Your task to perform on an android device: open wifi settings Image 0: 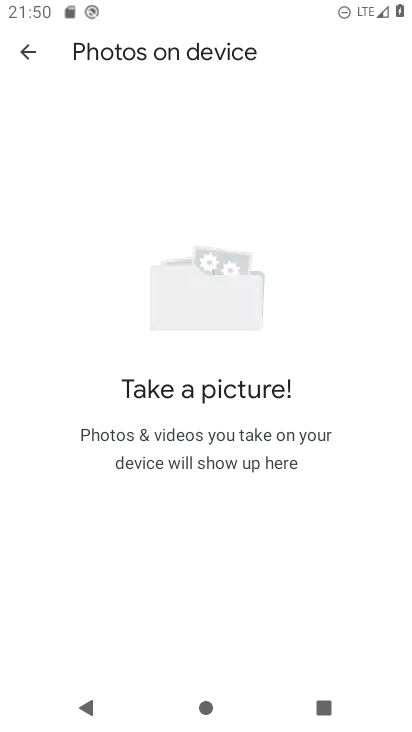
Step 0: press home button
Your task to perform on an android device: open wifi settings Image 1: 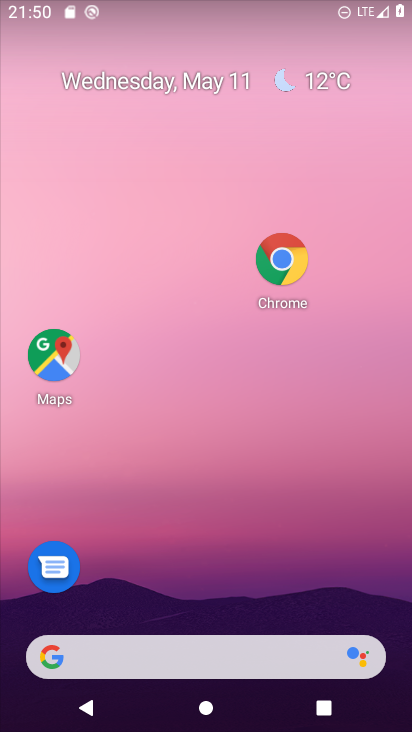
Step 1: drag from (152, 652) to (274, 157)
Your task to perform on an android device: open wifi settings Image 2: 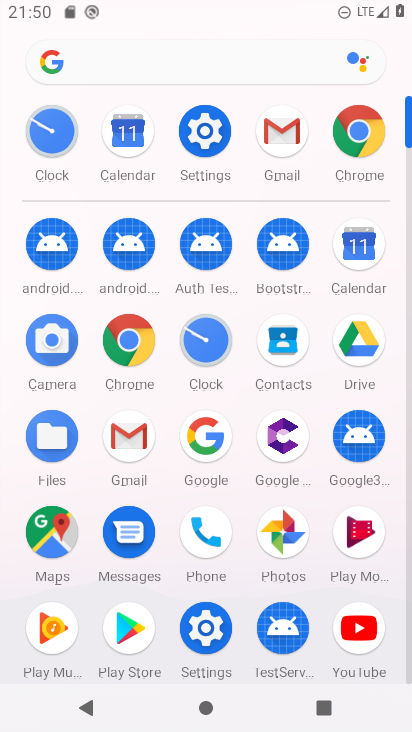
Step 2: click (213, 144)
Your task to perform on an android device: open wifi settings Image 3: 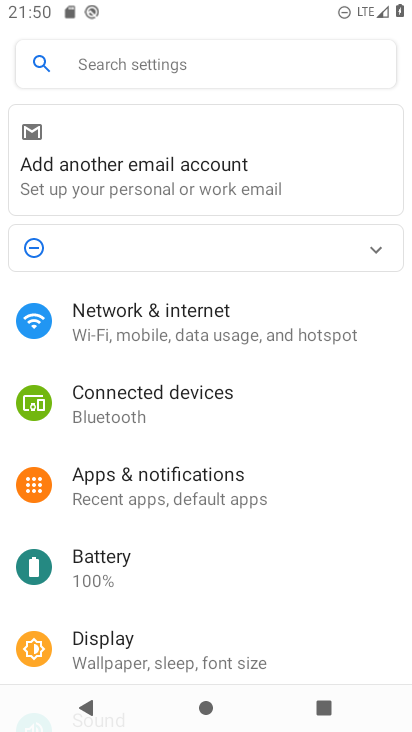
Step 3: click (169, 324)
Your task to perform on an android device: open wifi settings Image 4: 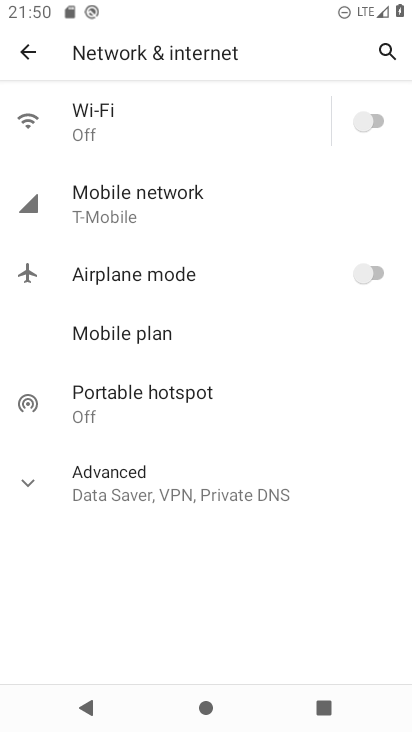
Step 4: click (144, 130)
Your task to perform on an android device: open wifi settings Image 5: 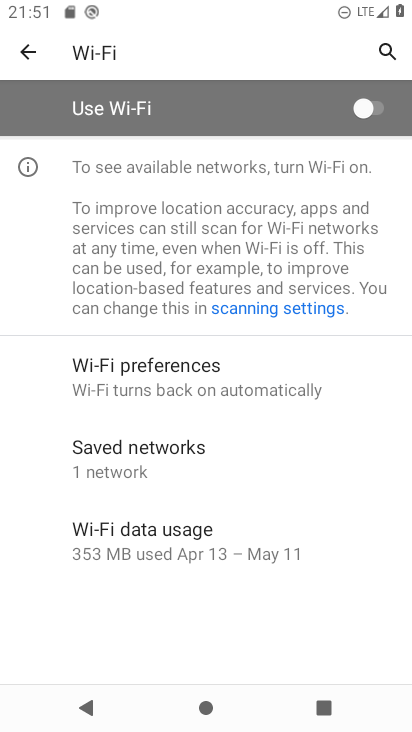
Step 5: task complete